Your task to perform on an android device: turn on translation in the chrome app Image 0: 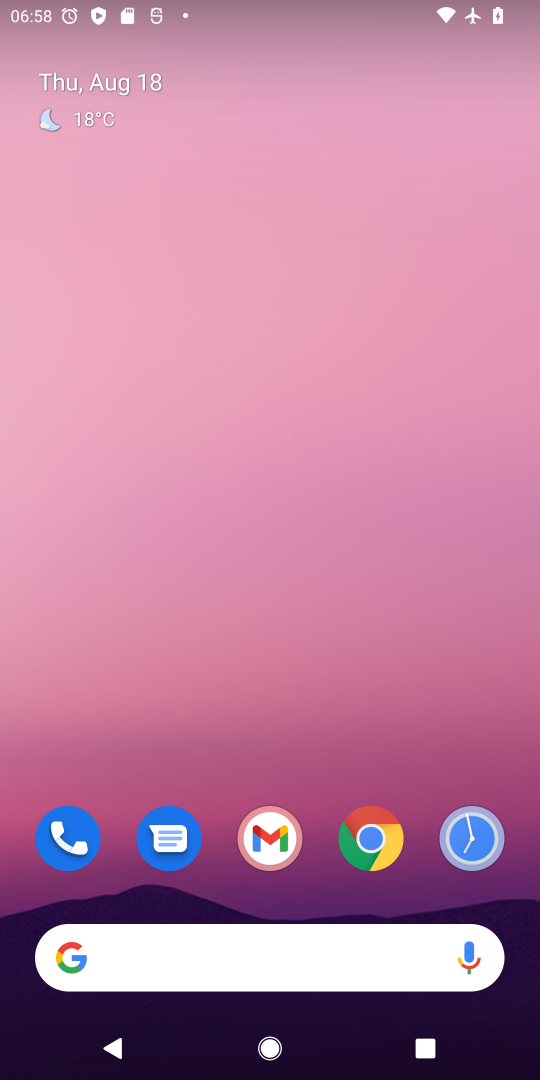
Step 0: press home button
Your task to perform on an android device: turn on translation in the chrome app Image 1: 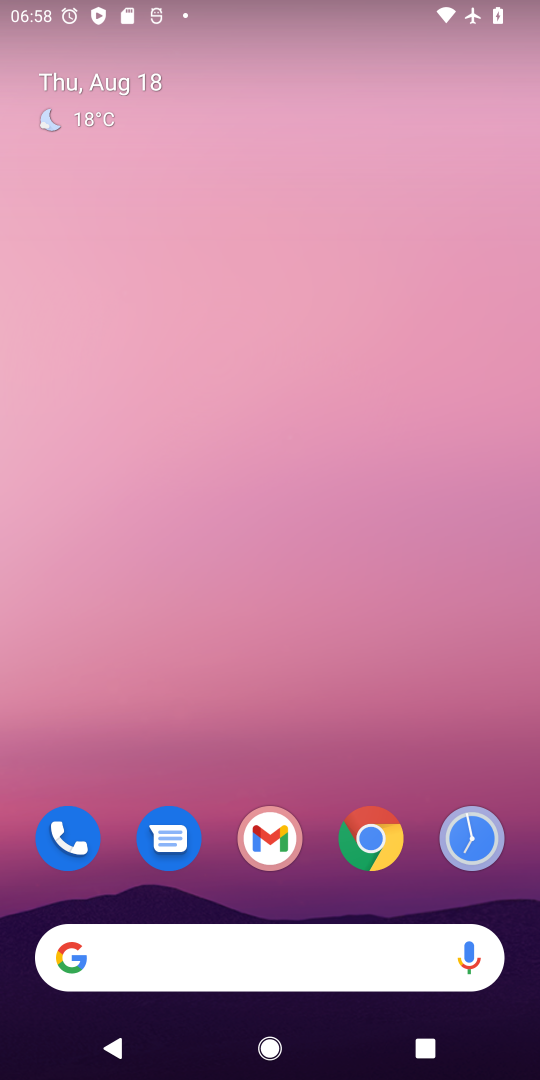
Step 1: click (375, 846)
Your task to perform on an android device: turn on translation in the chrome app Image 2: 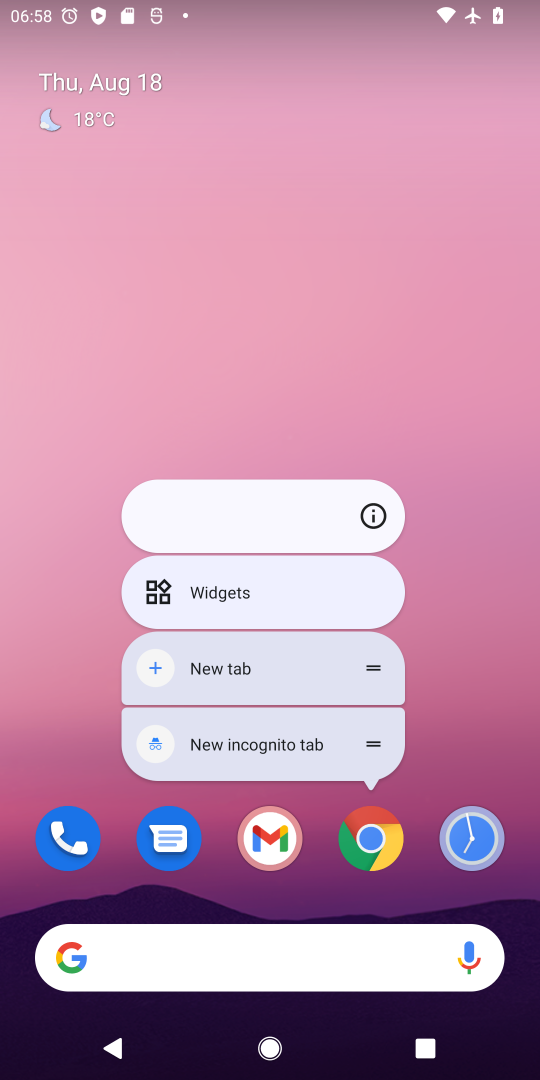
Step 2: click (374, 846)
Your task to perform on an android device: turn on translation in the chrome app Image 3: 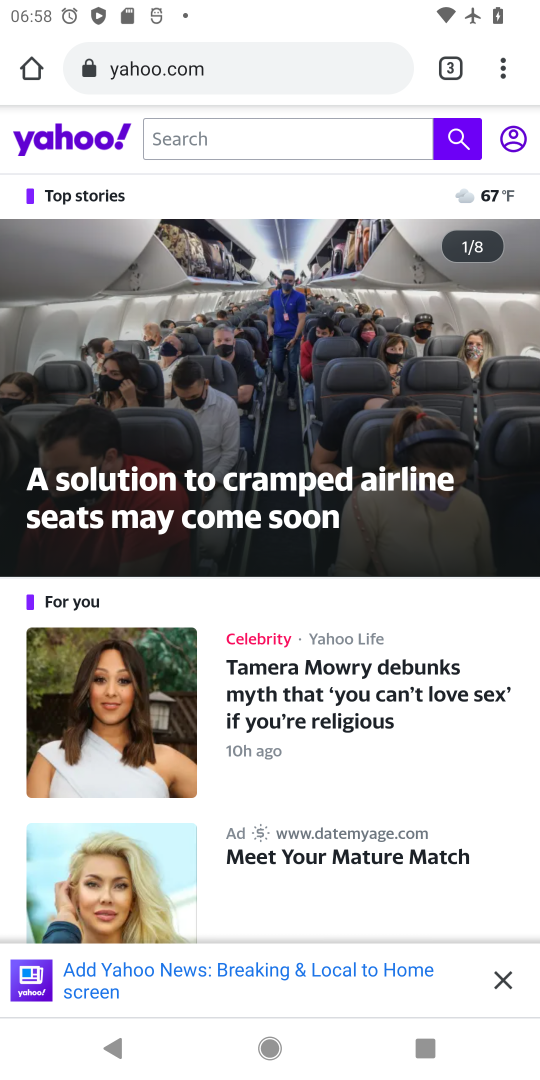
Step 3: drag from (499, 73) to (311, 946)
Your task to perform on an android device: turn on translation in the chrome app Image 4: 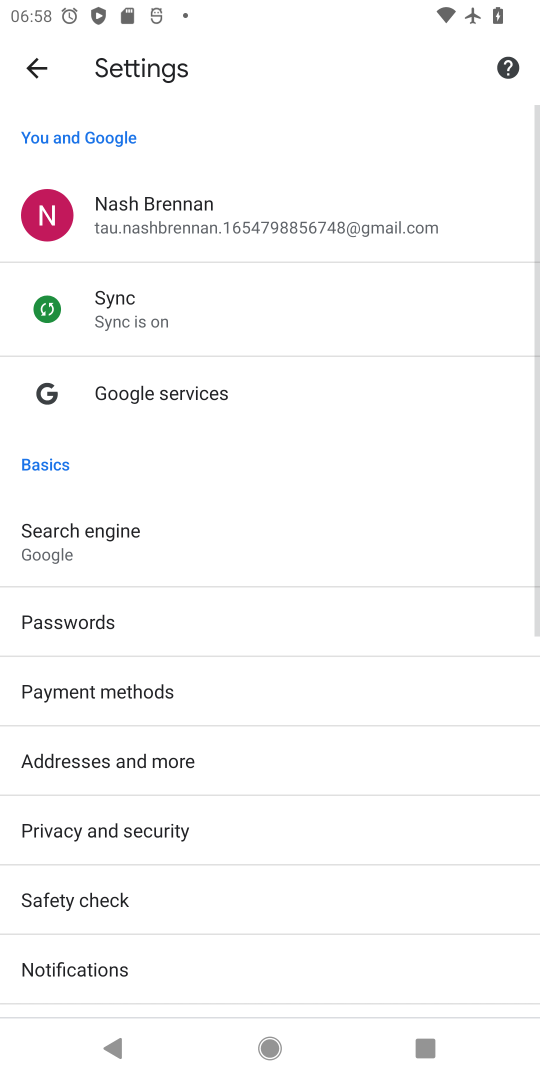
Step 4: drag from (349, 949) to (344, 402)
Your task to perform on an android device: turn on translation in the chrome app Image 5: 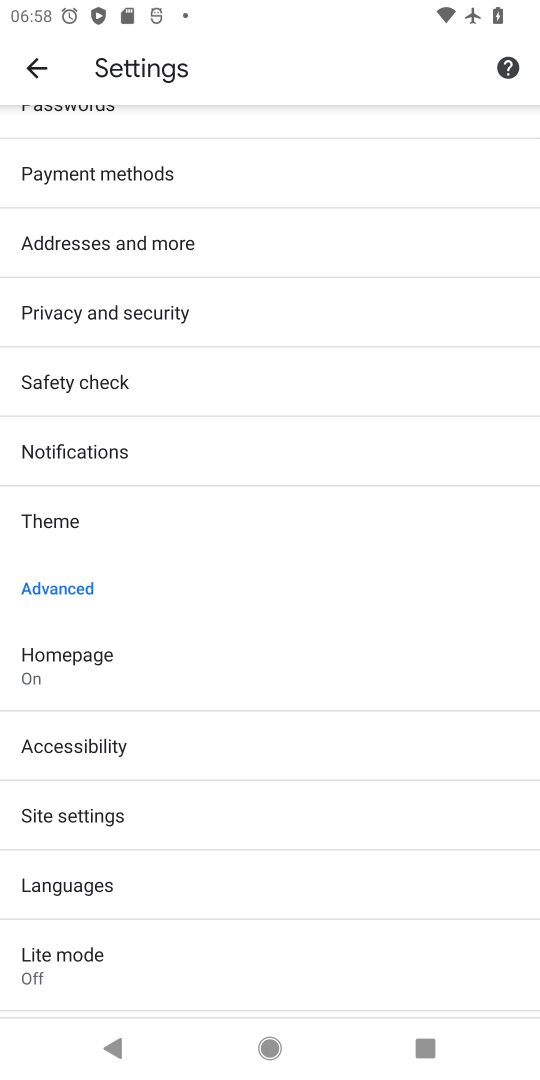
Step 5: click (68, 890)
Your task to perform on an android device: turn on translation in the chrome app Image 6: 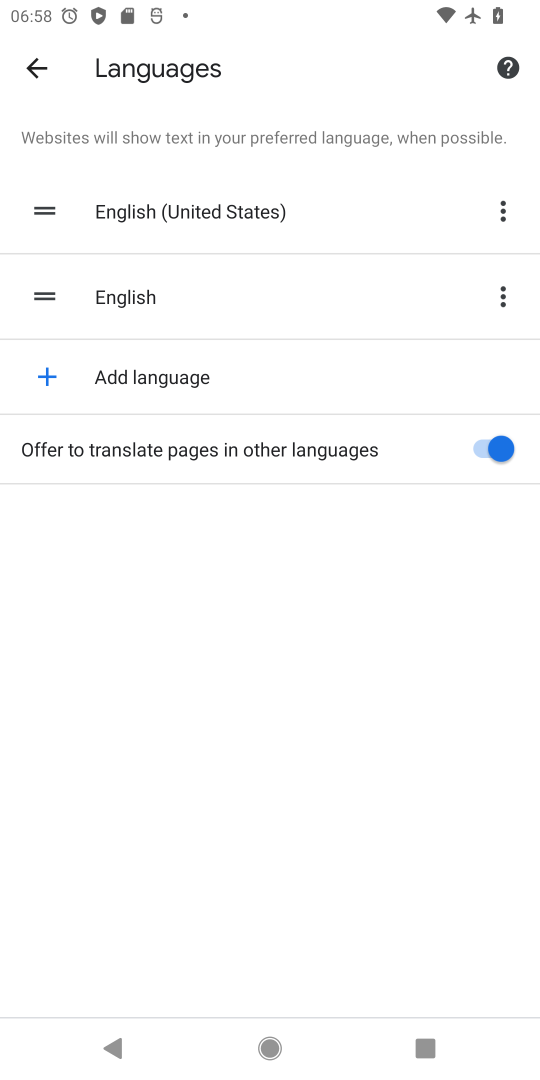
Step 6: task complete